Your task to perform on an android device: What's the weather going to be tomorrow? Image 0: 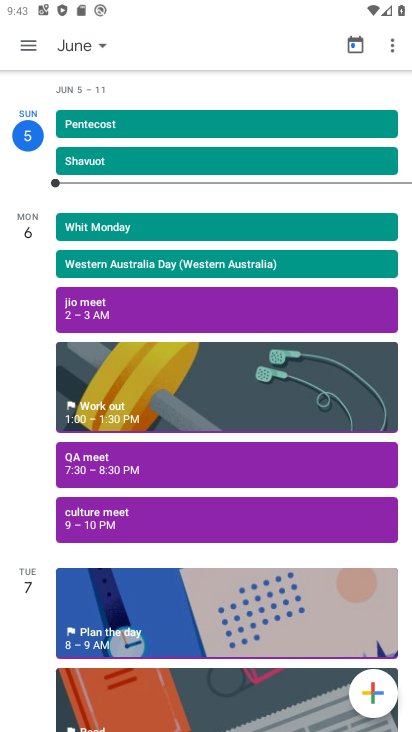
Step 0: press home button
Your task to perform on an android device: What's the weather going to be tomorrow? Image 1: 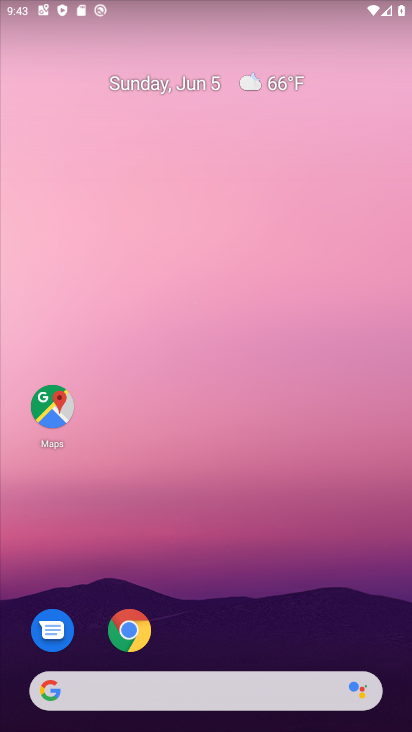
Step 1: drag from (199, 730) to (182, 19)
Your task to perform on an android device: What's the weather going to be tomorrow? Image 2: 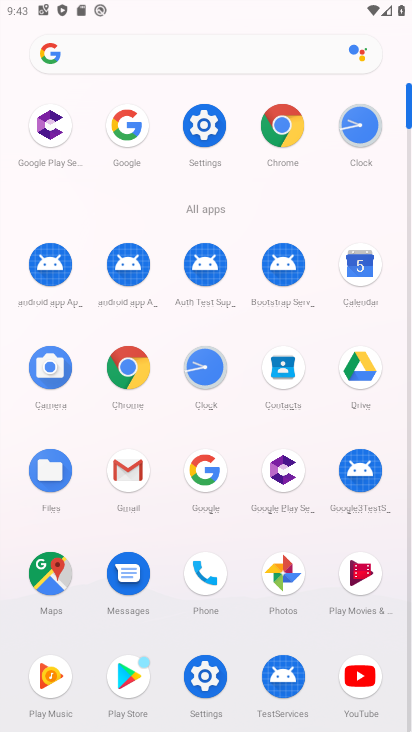
Step 2: click (199, 473)
Your task to perform on an android device: What's the weather going to be tomorrow? Image 3: 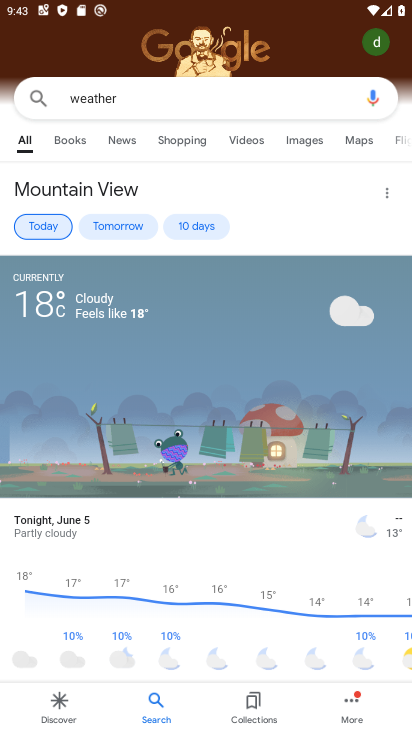
Step 3: click (105, 224)
Your task to perform on an android device: What's the weather going to be tomorrow? Image 4: 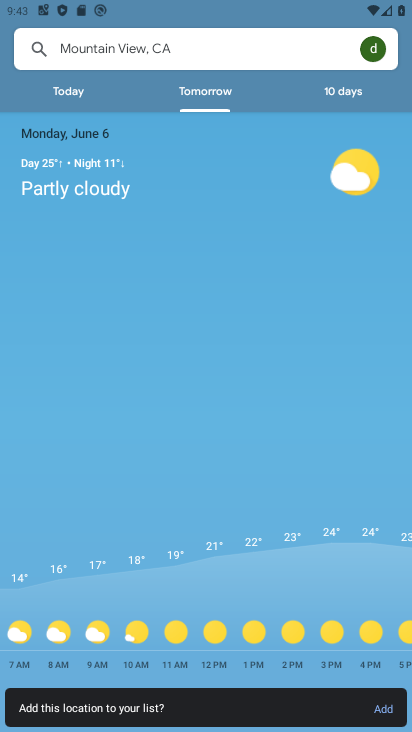
Step 4: task complete